Your task to perform on an android device: turn off improve location accuracy Image 0: 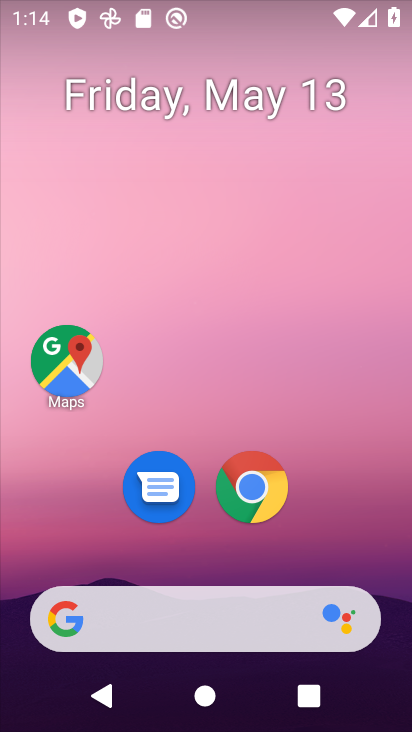
Step 0: drag from (380, 545) to (378, 210)
Your task to perform on an android device: turn off improve location accuracy Image 1: 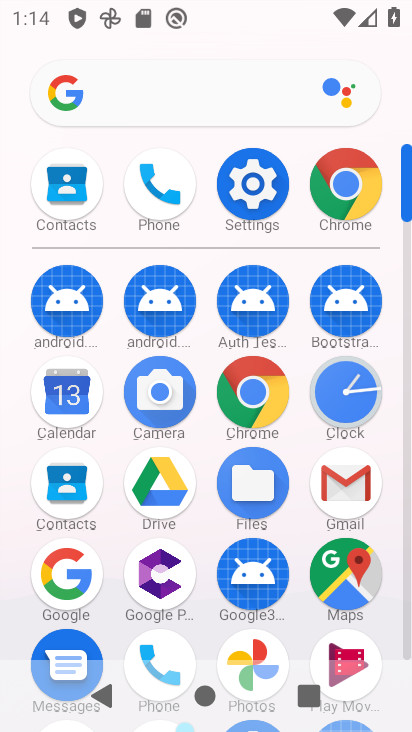
Step 1: click (259, 170)
Your task to perform on an android device: turn off improve location accuracy Image 2: 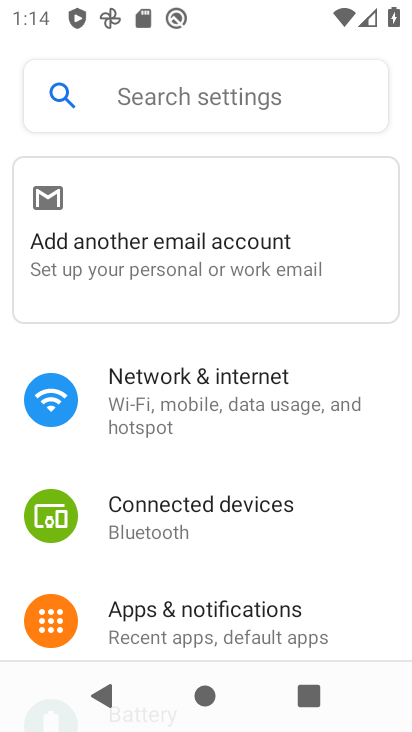
Step 2: drag from (326, 639) to (381, 315)
Your task to perform on an android device: turn off improve location accuracy Image 3: 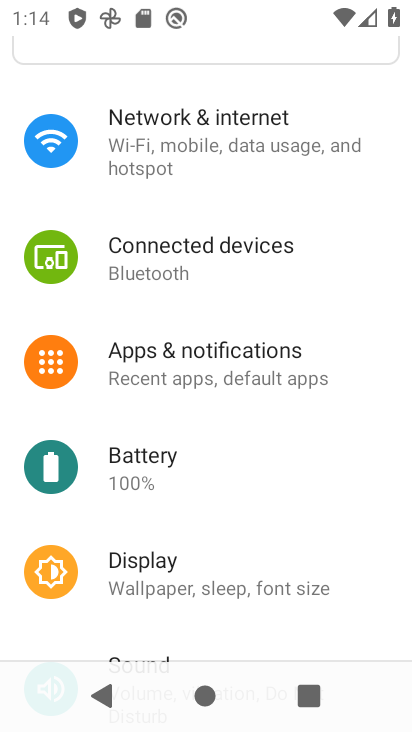
Step 3: drag from (294, 632) to (296, 316)
Your task to perform on an android device: turn off improve location accuracy Image 4: 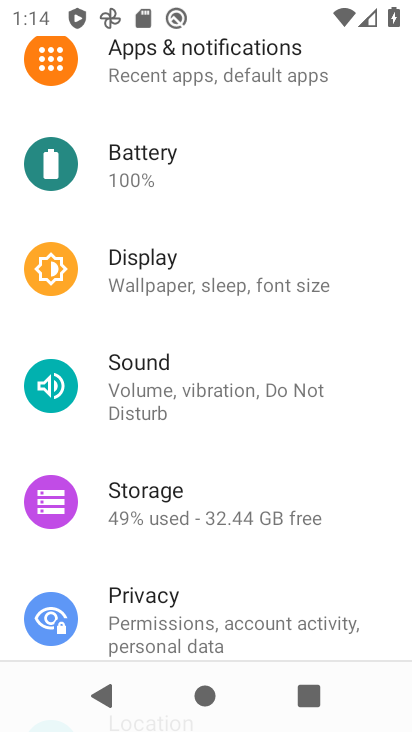
Step 4: drag from (253, 567) to (260, 292)
Your task to perform on an android device: turn off improve location accuracy Image 5: 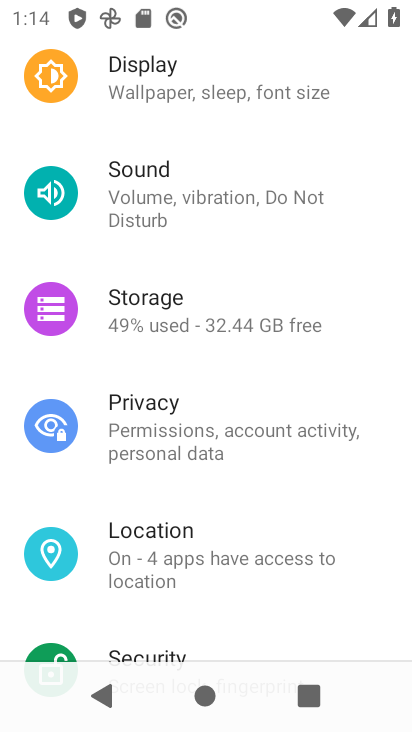
Step 5: click (216, 557)
Your task to perform on an android device: turn off improve location accuracy Image 6: 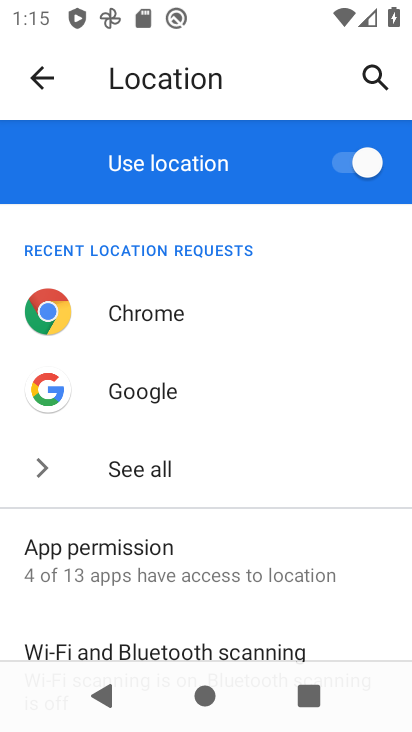
Step 6: drag from (242, 602) to (285, 374)
Your task to perform on an android device: turn off improve location accuracy Image 7: 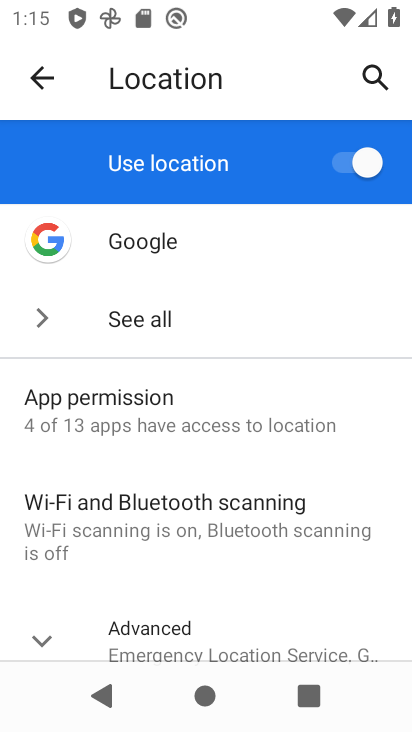
Step 7: drag from (297, 623) to (314, 397)
Your task to perform on an android device: turn off improve location accuracy Image 8: 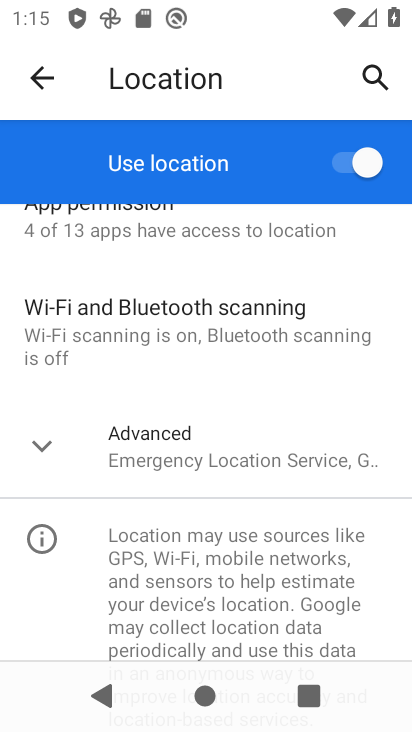
Step 8: click (226, 441)
Your task to perform on an android device: turn off improve location accuracy Image 9: 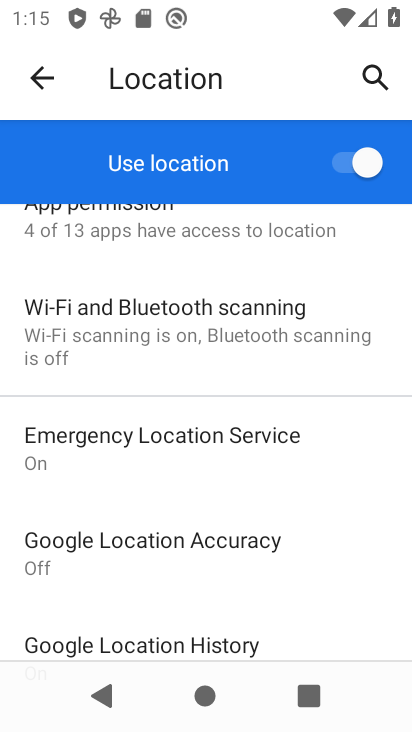
Step 9: click (204, 542)
Your task to perform on an android device: turn off improve location accuracy Image 10: 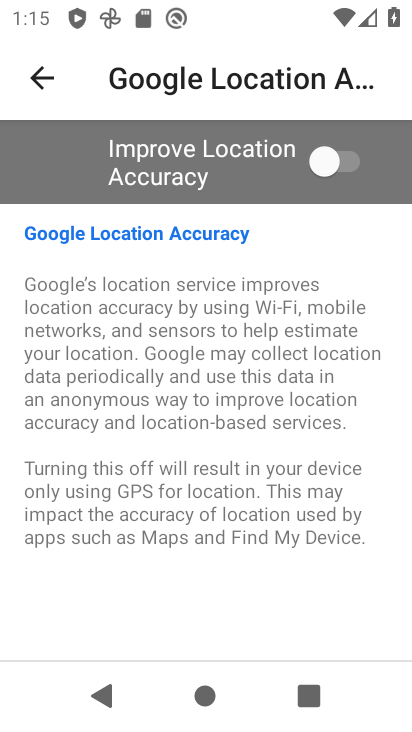
Step 10: task complete